Your task to perform on an android device: Go to accessibility settings Image 0: 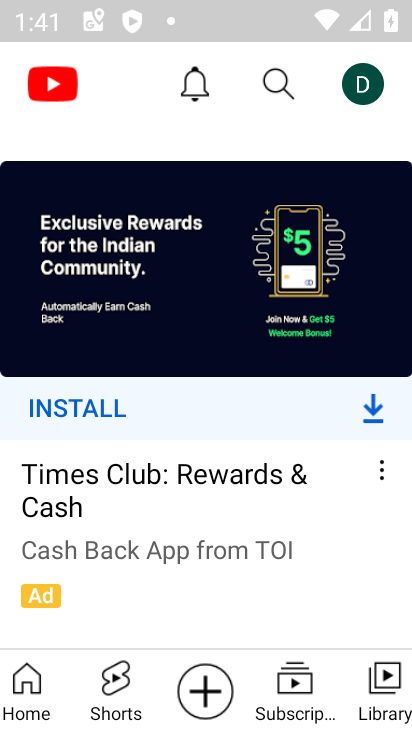
Step 0: press home button
Your task to perform on an android device: Go to accessibility settings Image 1: 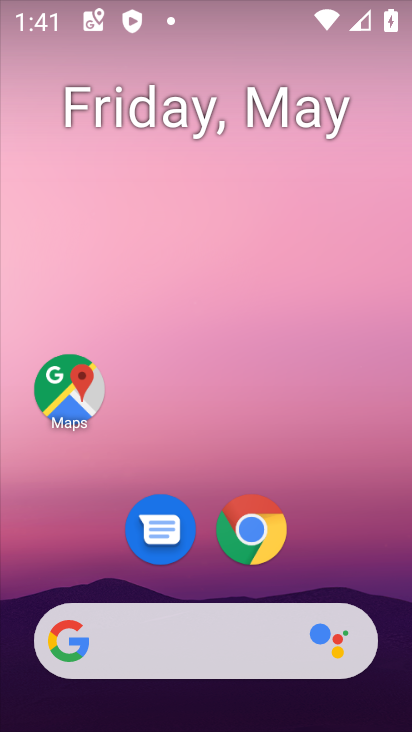
Step 1: drag from (341, 556) to (211, 82)
Your task to perform on an android device: Go to accessibility settings Image 2: 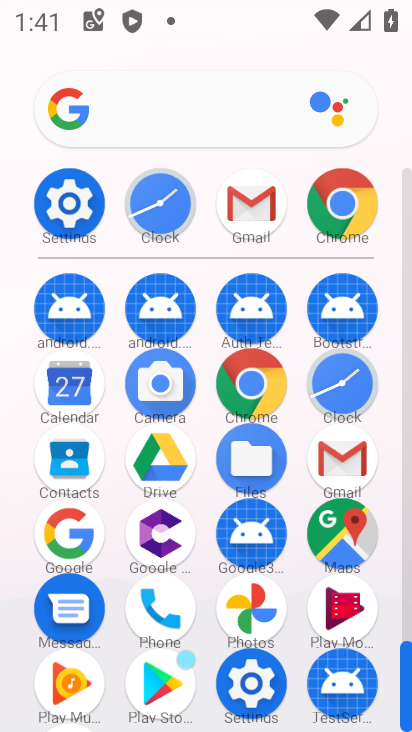
Step 2: click (51, 177)
Your task to perform on an android device: Go to accessibility settings Image 3: 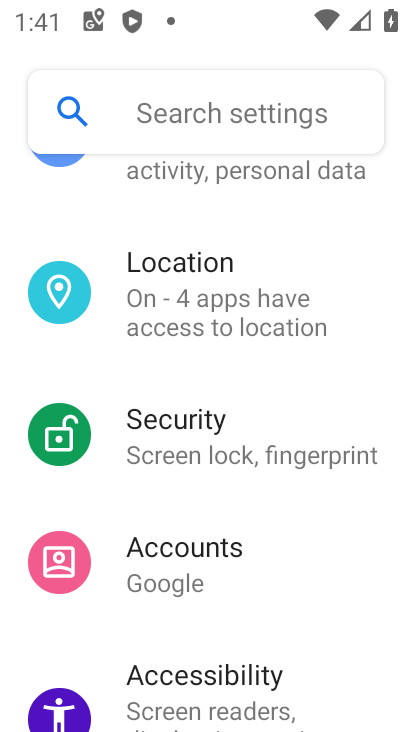
Step 3: click (196, 719)
Your task to perform on an android device: Go to accessibility settings Image 4: 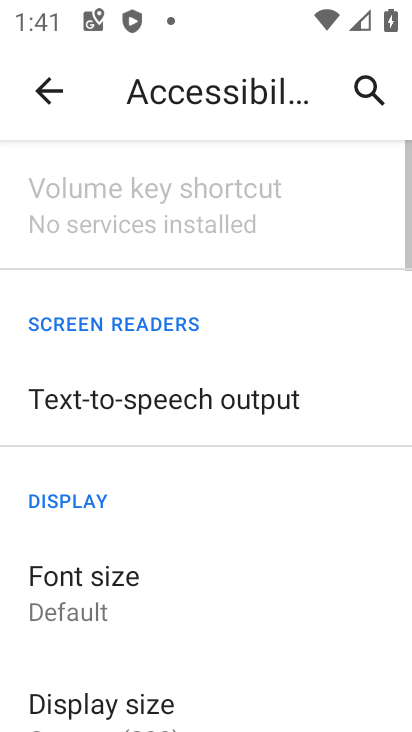
Step 4: task complete